Your task to perform on an android device: check out phone information Image 0: 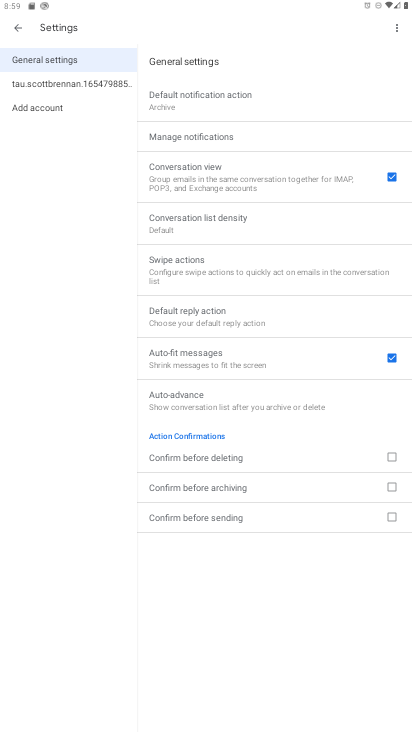
Step 0: press home button
Your task to perform on an android device: check out phone information Image 1: 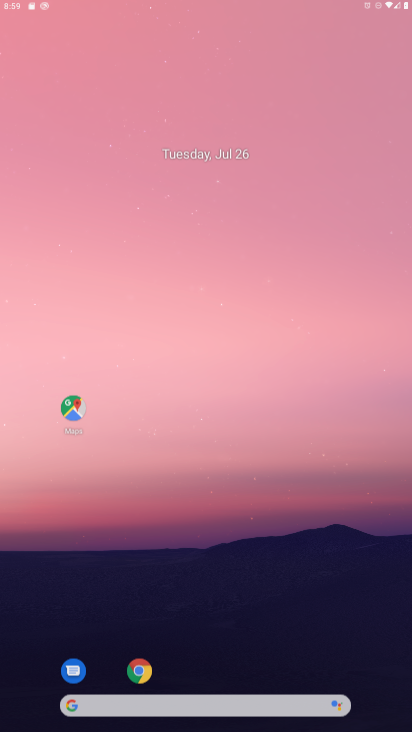
Step 1: drag from (382, 667) to (209, 2)
Your task to perform on an android device: check out phone information Image 2: 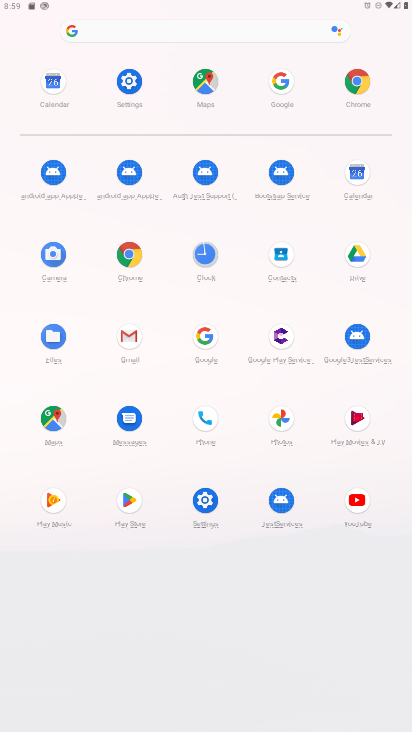
Step 2: click (204, 505)
Your task to perform on an android device: check out phone information Image 3: 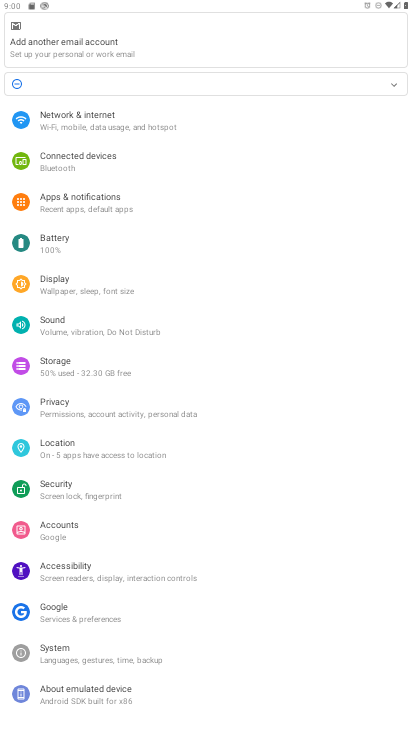
Step 3: click (59, 642)
Your task to perform on an android device: check out phone information Image 4: 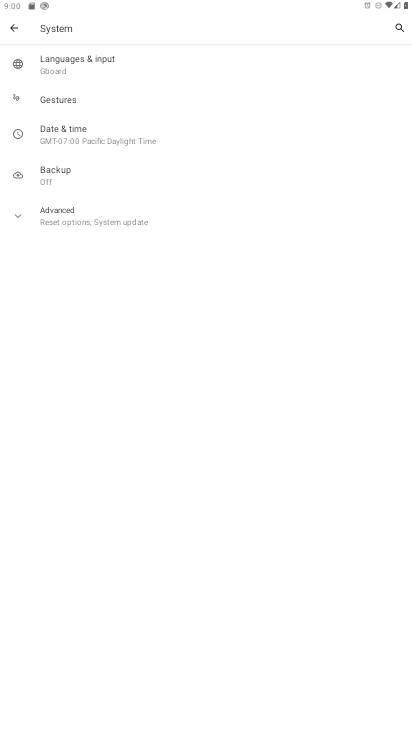
Step 4: task complete